Your task to perform on an android device: clear history in the chrome app Image 0: 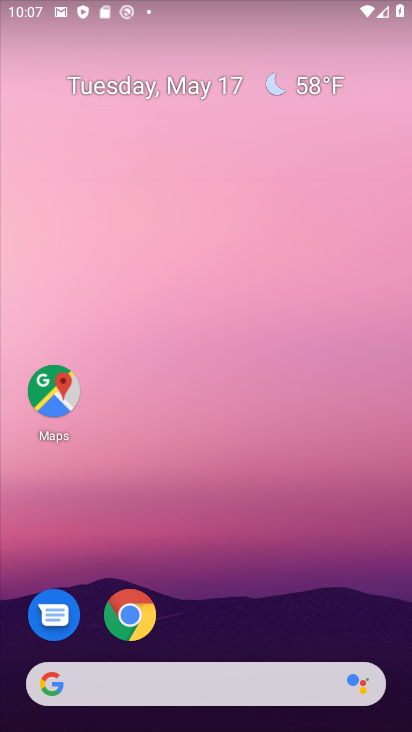
Step 0: click (135, 611)
Your task to perform on an android device: clear history in the chrome app Image 1: 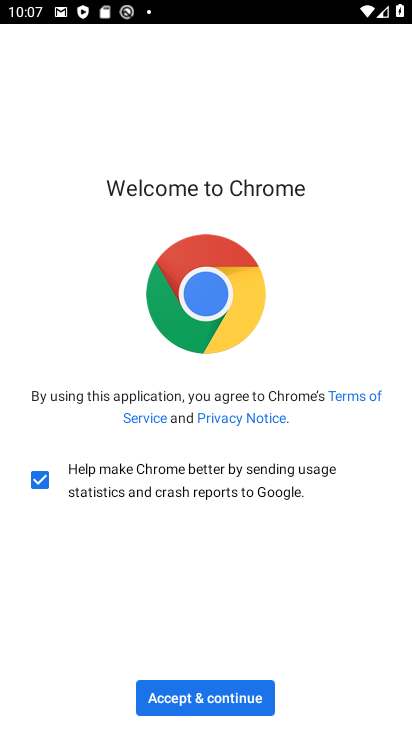
Step 1: click (200, 691)
Your task to perform on an android device: clear history in the chrome app Image 2: 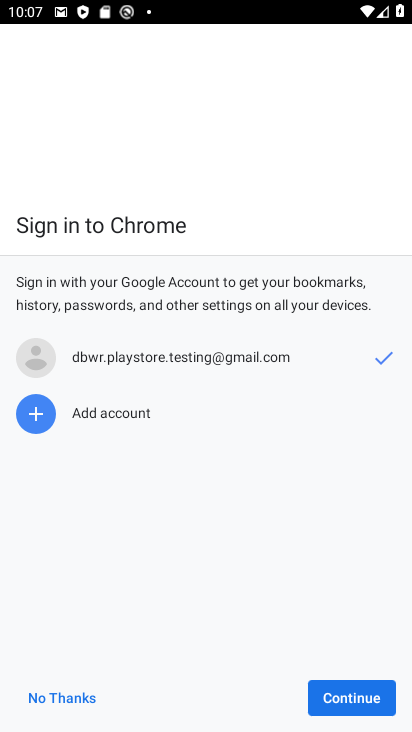
Step 2: click (344, 698)
Your task to perform on an android device: clear history in the chrome app Image 3: 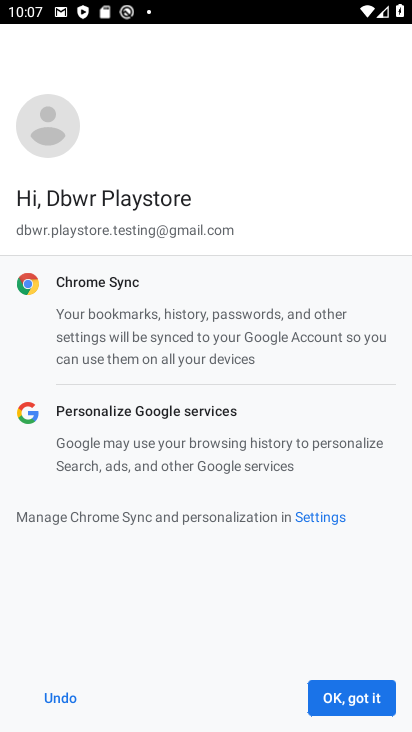
Step 3: click (344, 698)
Your task to perform on an android device: clear history in the chrome app Image 4: 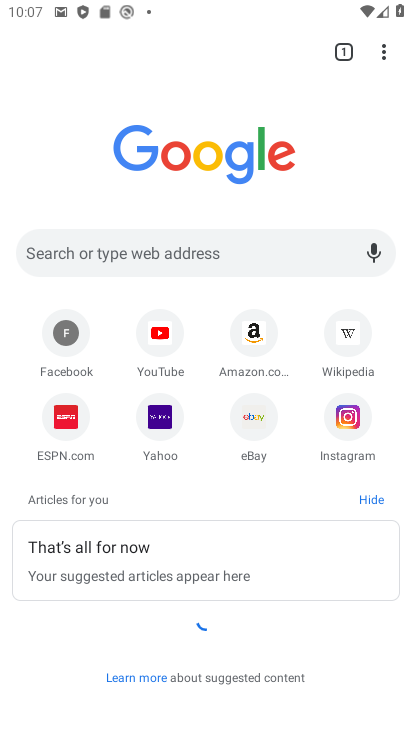
Step 4: task complete